Your task to perform on an android device: open the mobile data screen to see how much data has been used Image 0: 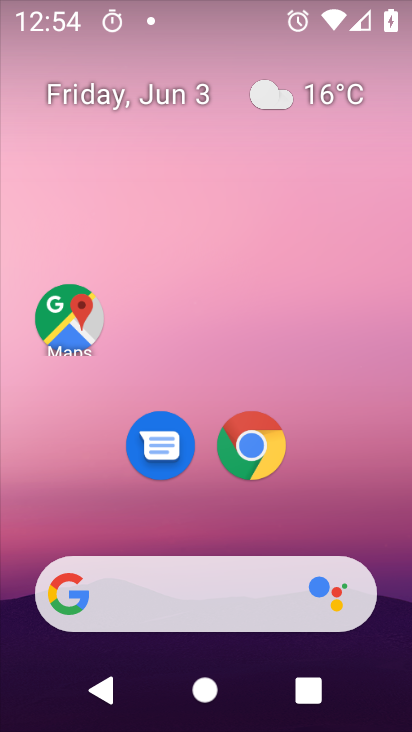
Step 0: drag from (256, 22) to (391, 468)
Your task to perform on an android device: open the mobile data screen to see how much data has been used Image 1: 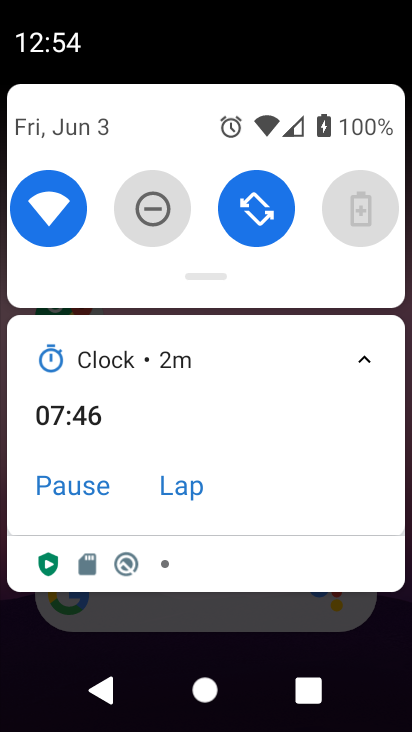
Step 1: drag from (226, 146) to (238, 602)
Your task to perform on an android device: open the mobile data screen to see how much data has been used Image 2: 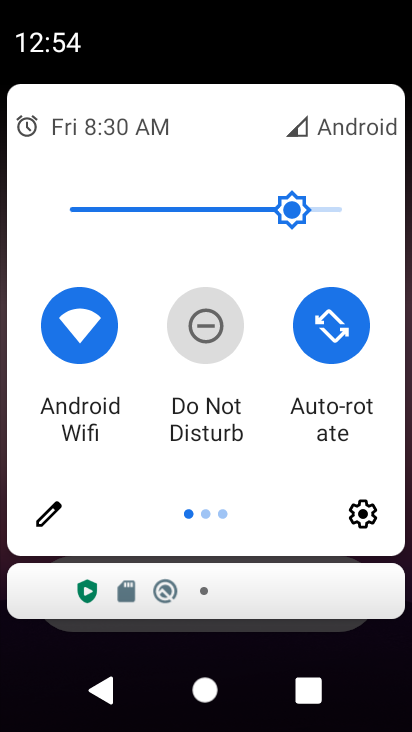
Step 2: drag from (303, 450) to (13, 438)
Your task to perform on an android device: open the mobile data screen to see how much data has been used Image 3: 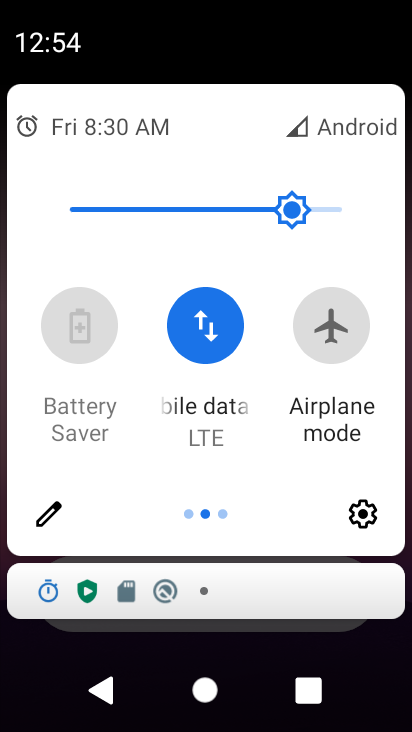
Step 3: drag from (336, 347) to (63, 494)
Your task to perform on an android device: open the mobile data screen to see how much data has been used Image 4: 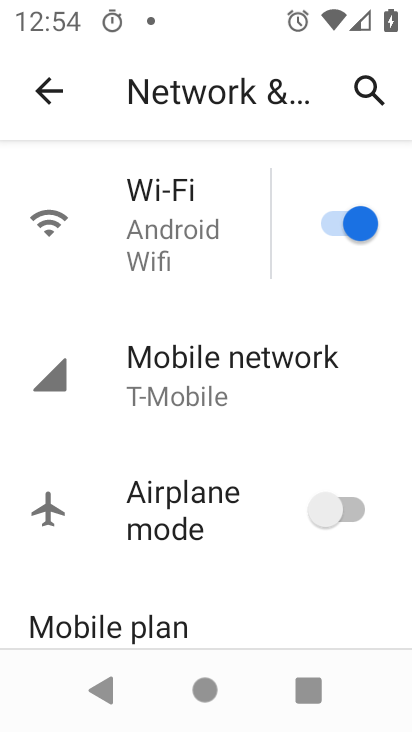
Step 4: click (259, 377)
Your task to perform on an android device: open the mobile data screen to see how much data has been used Image 5: 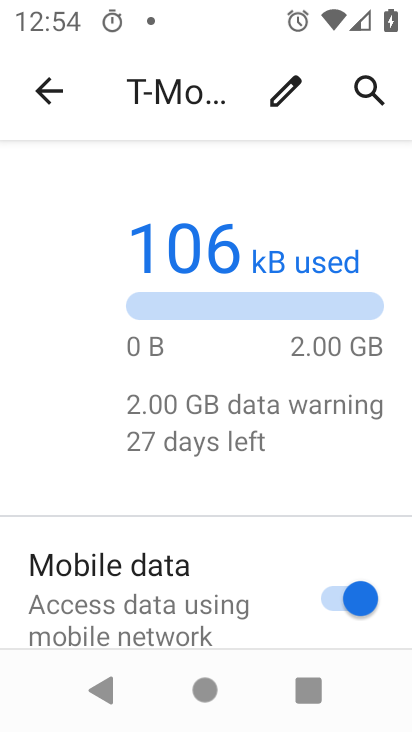
Step 5: task complete